Your task to perform on an android device: find photos in the google photos app Image 0: 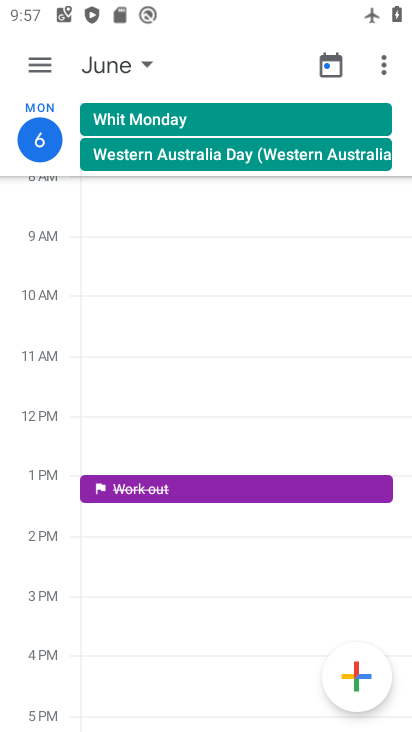
Step 0: press home button
Your task to perform on an android device: find photos in the google photos app Image 1: 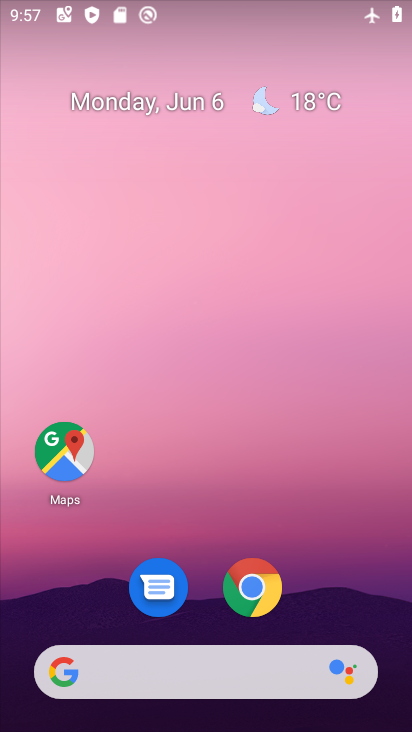
Step 1: drag from (344, 573) to (261, 163)
Your task to perform on an android device: find photos in the google photos app Image 2: 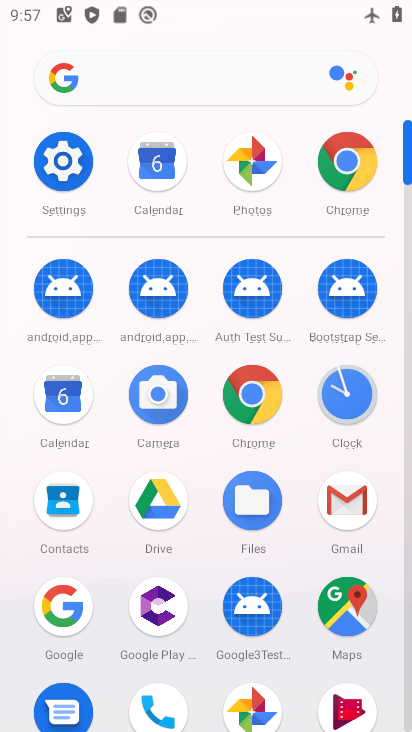
Step 2: click (260, 163)
Your task to perform on an android device: find photos in the google photos app Image 3: 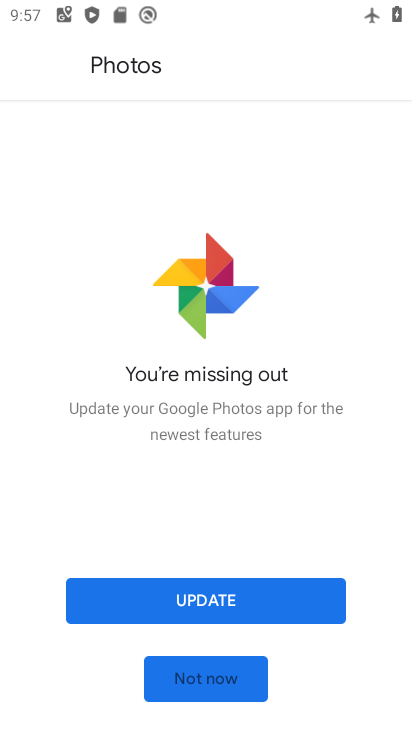
Step 3: click (215, 590)
Your task to perform on an android device: find photos in the google photos app Image 4: 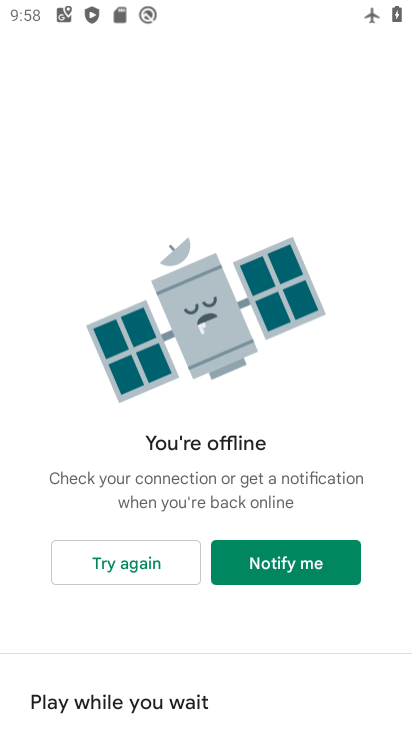
Step 4: task complete